Your task to perform on an android device: open sync settings in chrome Image 0: 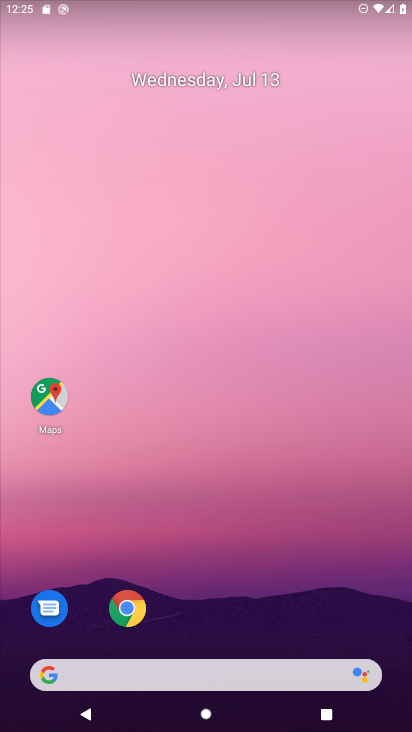
Step 0: click (135, 615)
Your task to perform on an android device: open sync settings in chrome Image 1: 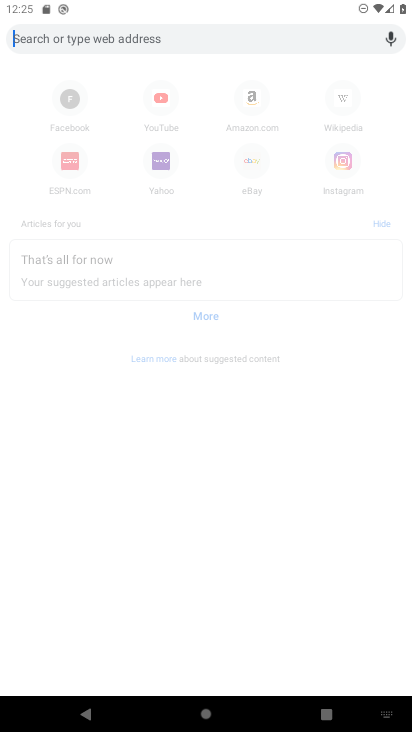
Step 1: press back button
Your task to perform on an android device: open sync settings in chrome Image 2: 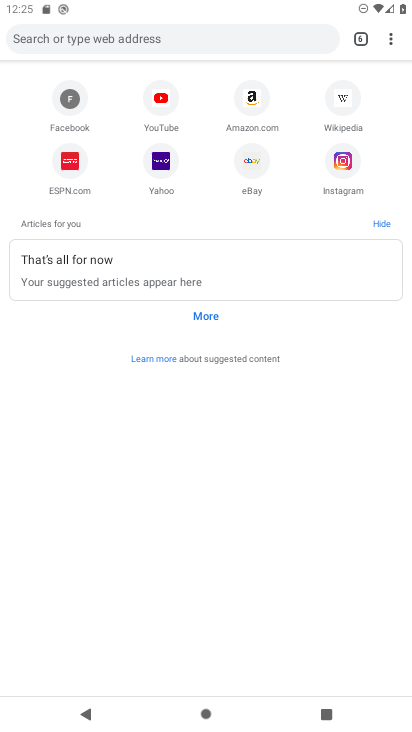
Step 2: click (385, 40)
Your task to perform on an android device: open sync settings in chrome Image 3: 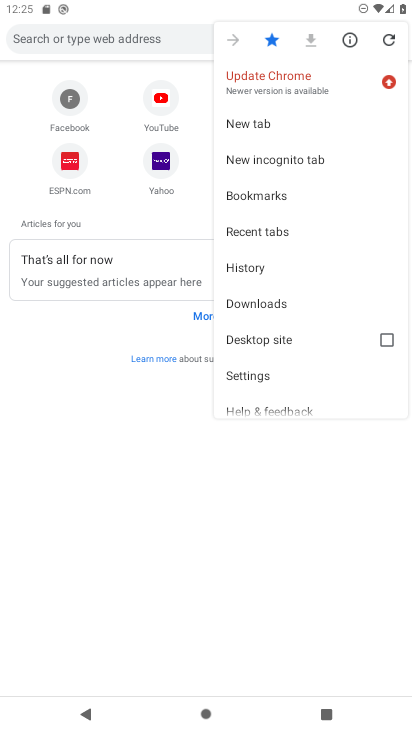
Step 3: click (266, 374)
Your task to perform on an android device: open sync settings in chrome Image 4: 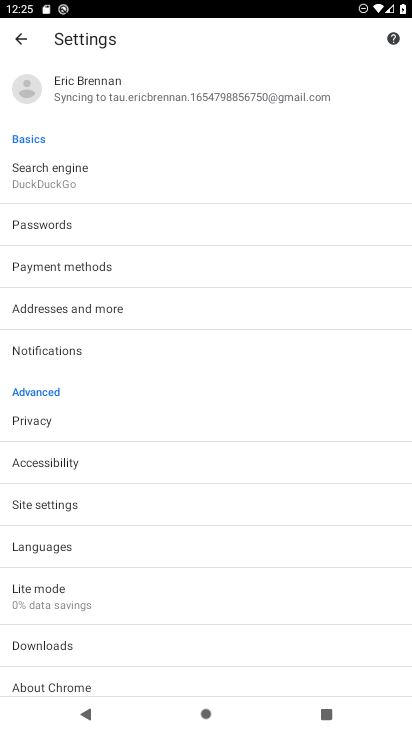
Step 4: click (100, 100)
Your task to perform on an android device: open sync settings in chrome Image 5: 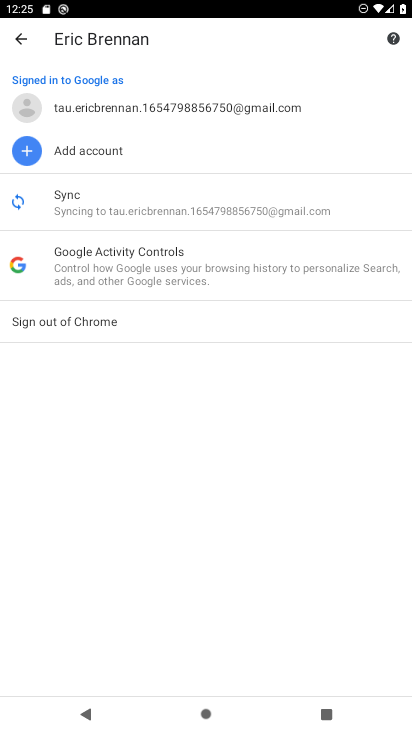
Step 5: click (122, 204)
Your task to perform on an android device: open sync settings in chrome Image 6: 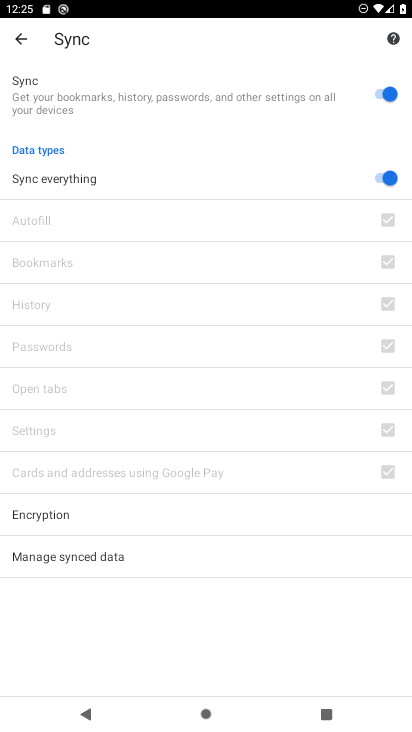
Step 6: task complete